Your task to perform on an android device: What's the latest video from Game Informer? Image 0: 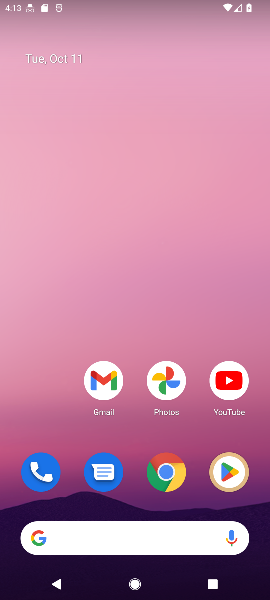
Step 0: click (170, 485)
Your task to perform on an android device: What's the latest video from Game Informer? Image 1: 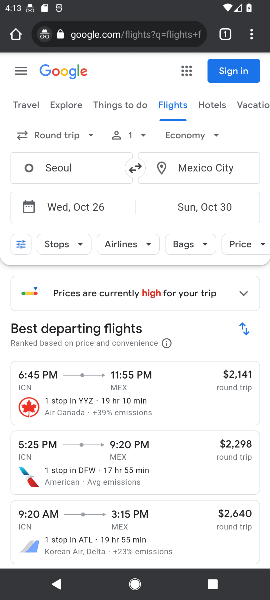
Step 1: click (110, 33)
Your task to perform on an android device: What's the latest video from Game Informer? Image 2: 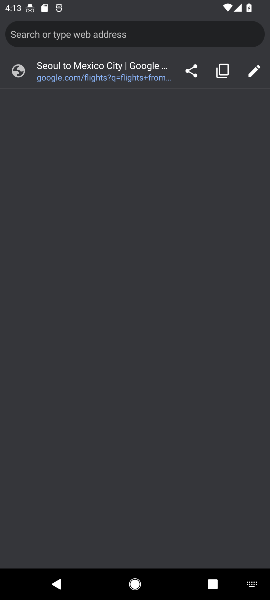
Step 2: type "What's the latest video from Game Informer?"
Your task to perform on an android device: What's the latest video from Game Informer? Image 3: 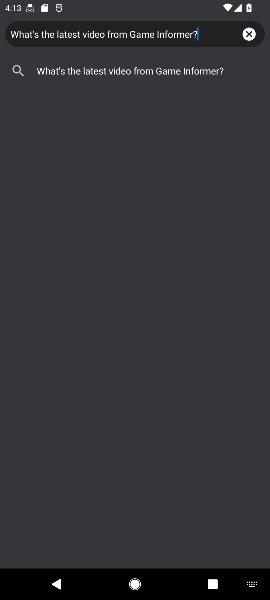
Step 3: click (124, 64)
Your task to perform on an android device: What's the latest video from Game Informer? Image 4: 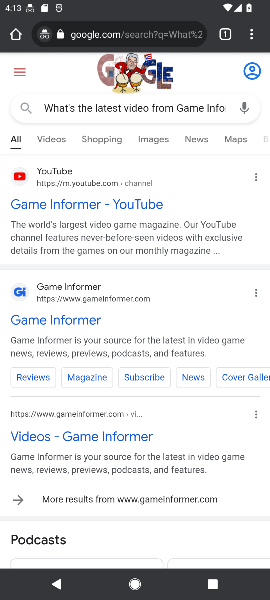
Step 4: click (121, 207)
Your task to perform on an android device: What's the latest video from Game Informer? Image 5: 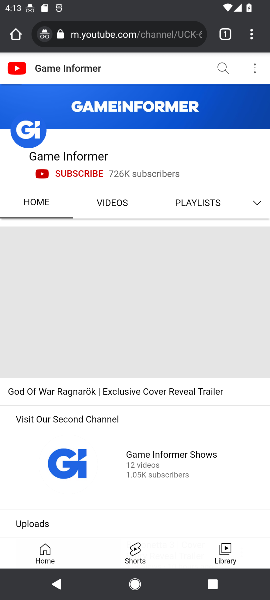
Step 5: click (121, 207)
Your task to perform on an android device: What's the latest video from Game Informer? Image 6: 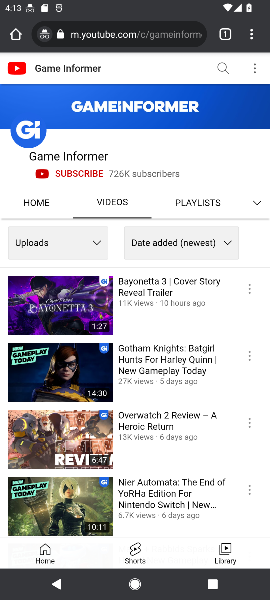
Step 6: click (78, 298)
Your task to perform on an android device: What's the latest video from Game Informer? Image 7: 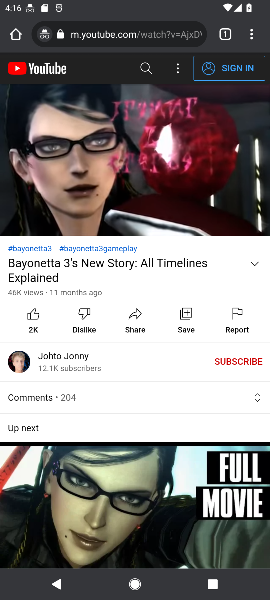
Step 7: task complete